Your task to perform on an android device: Open Chrome and go to the settings page Image 0: 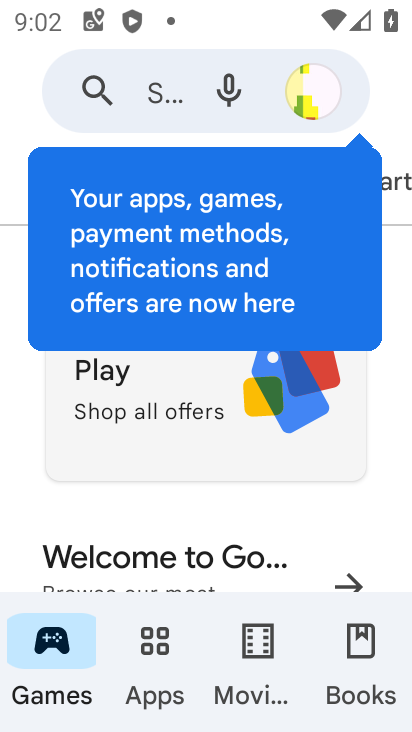
Step 0: press home button
Your task to perform on an android device: Open Chrome and go to the settings page Image 1: 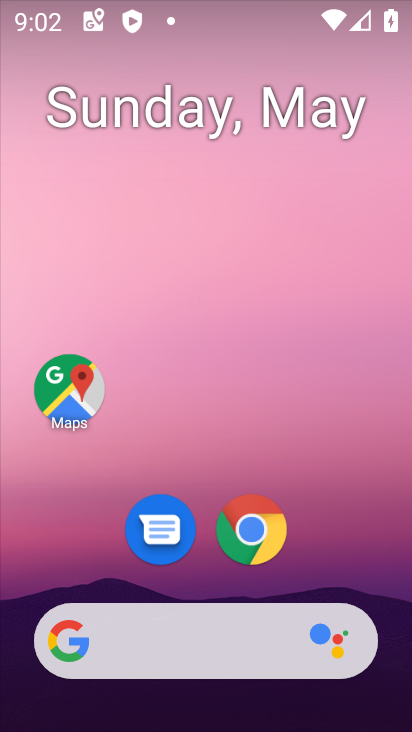
Step 1: click (233, 511)
Your task to perform on an android device: Open Chrome and go to the settings page Image 2: 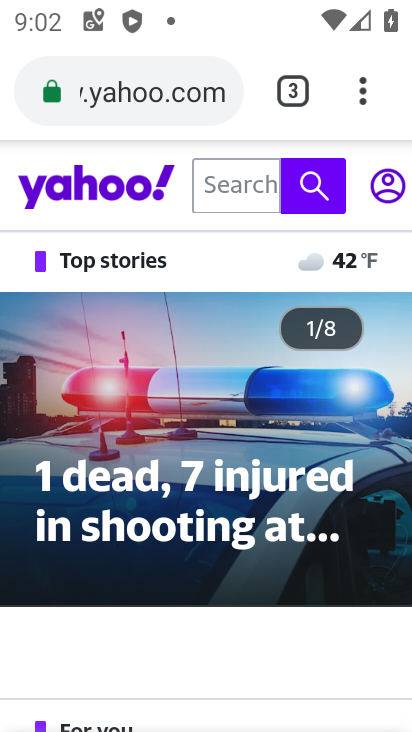
Step 2: click (372, 103)
Your task to perform on an android device: Open Chrome and go to the settings page Image 3: 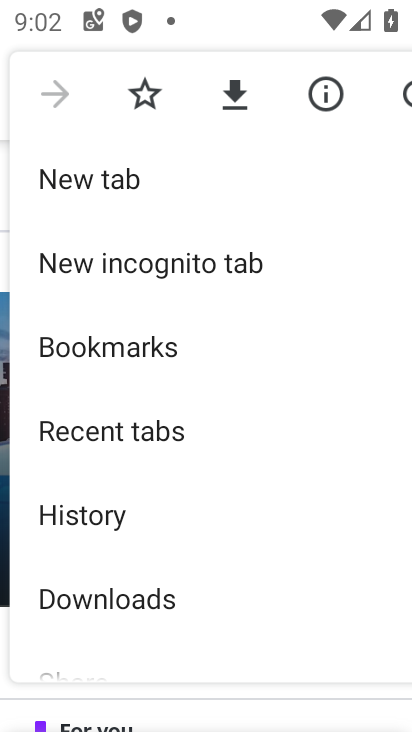
Step 3: drag from (142, 579) to (143, 351)
Your task to perform on an android device: Open Chrome and go to the settings page Image 4: 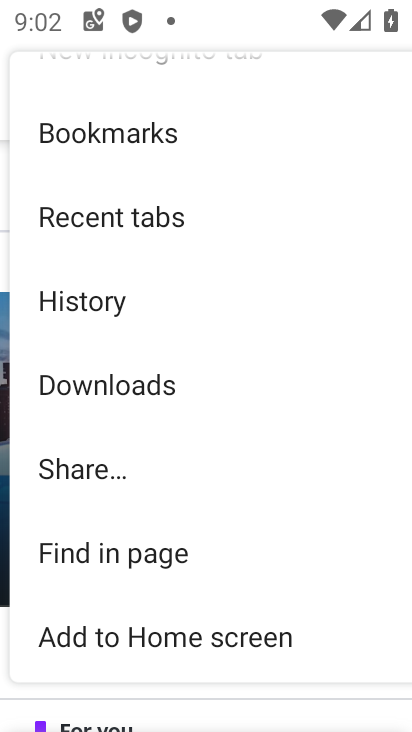
Step 4: drag from (190, 660) to (195, 397)
Your task to perform on an android device: Open Chrome and go to the settings page Image 5: 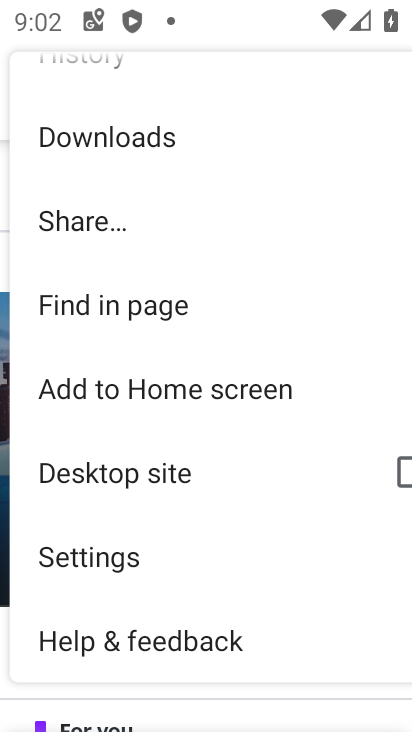
Step 5: click (172, 566)
Your task to perform on an android device: Open Chrome and go to the settings page Image 6: 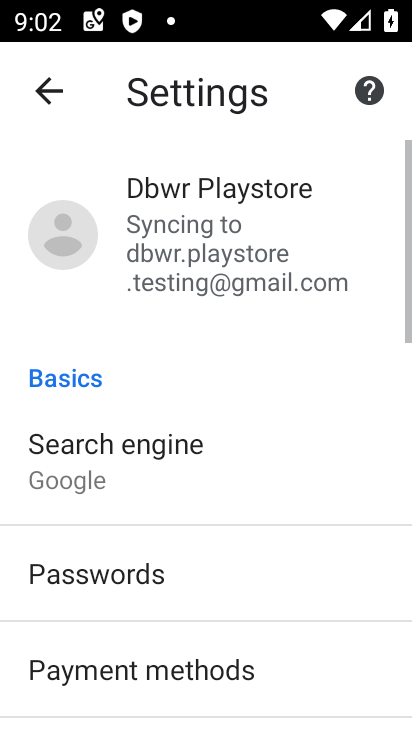
Step 6: task complete